Your task to perform on an android device: Open privacy settings Image 0: 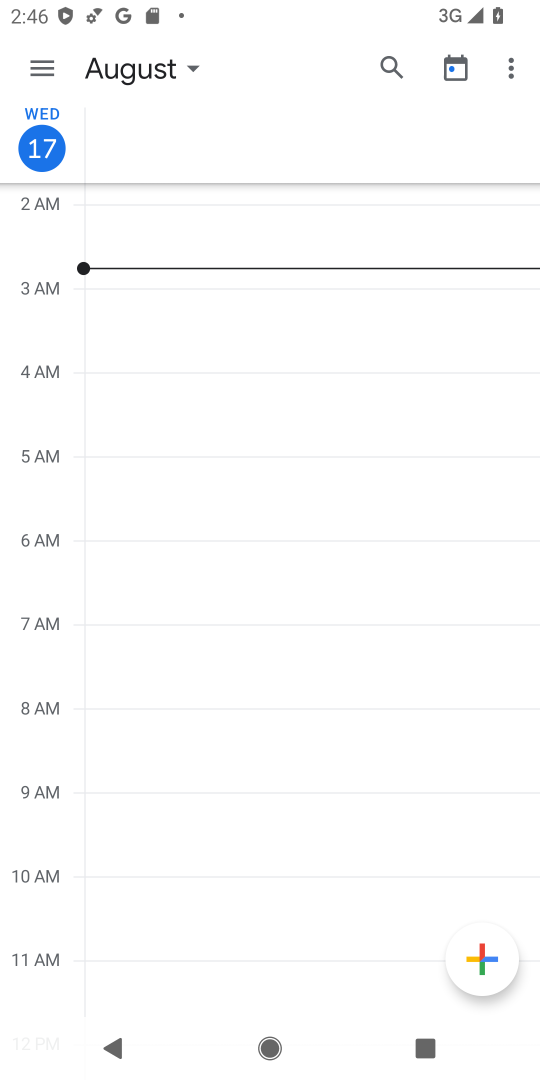
Step 0: press back button
Your task to perform on an android device: Open privacy settings Image 1: 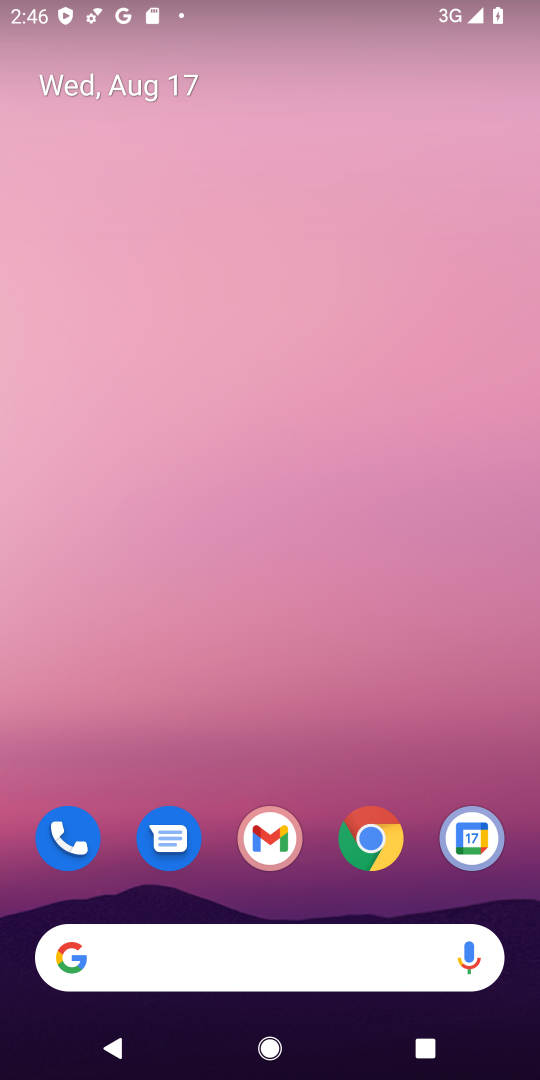
Step 1: drag from (208, 851) to (261, 123)
Your task to perform on an android device: Open privacy settings Image 2: 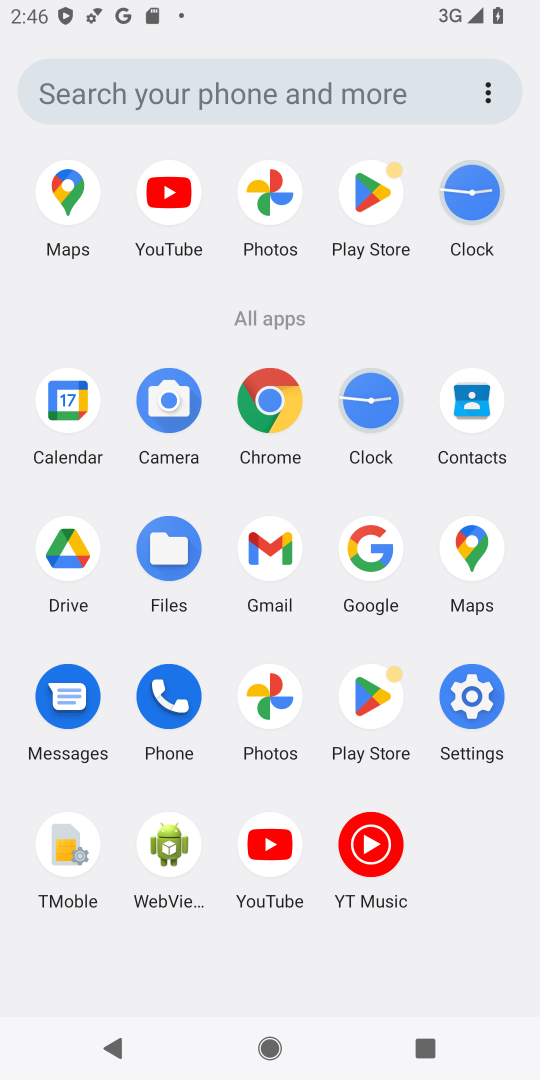
Step 2: click (474, 709)
Your task to perform on an android device: Open privacy settings Image 3: 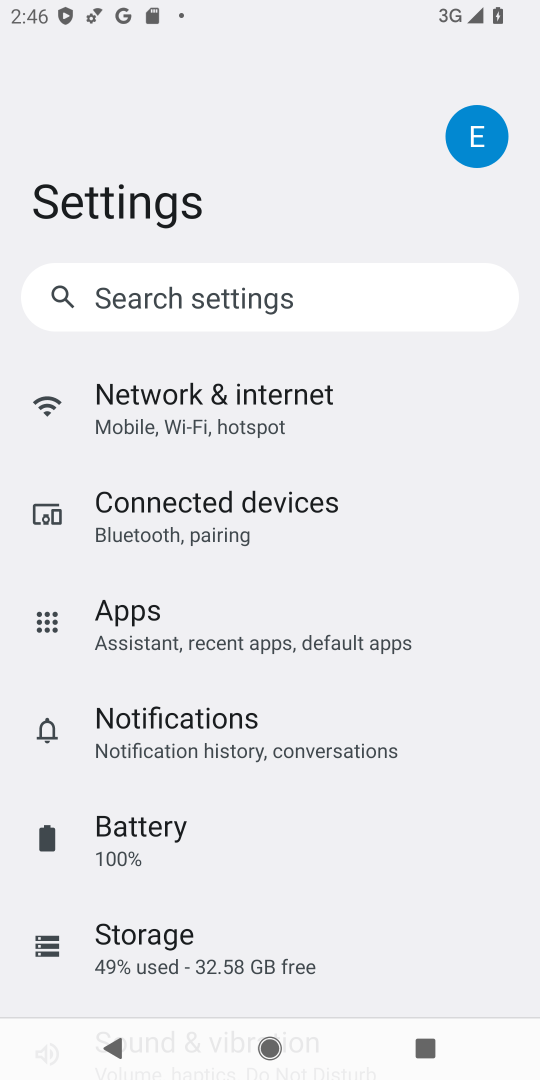
Step 3: drag from (171, 924) to (354, 333)
Your task to perform on an android device: Open privacy settings Image 4: 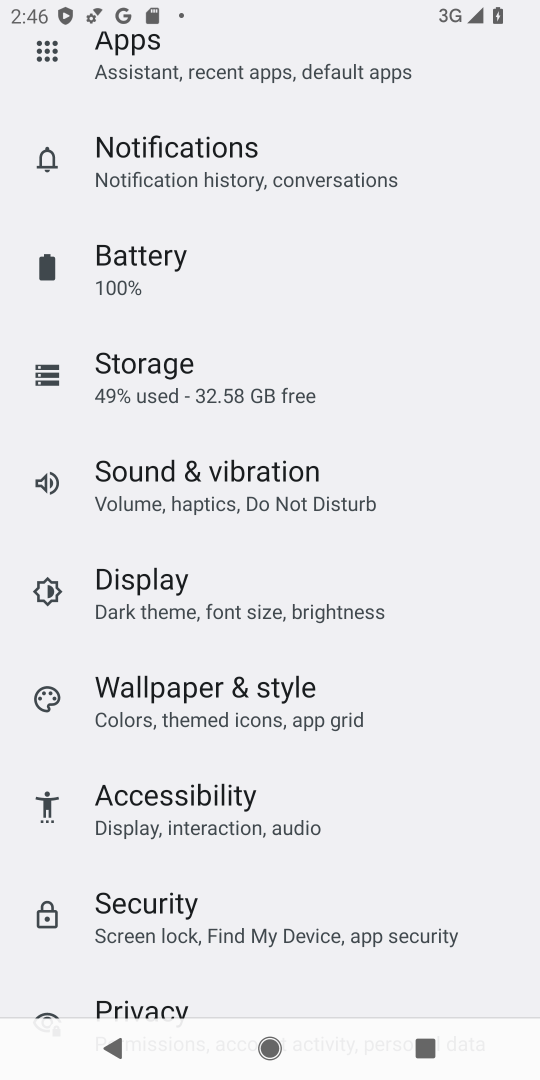
Step 4: click (150, 1006)
Your task to perform on an android device: Open privacy settings Image 5: 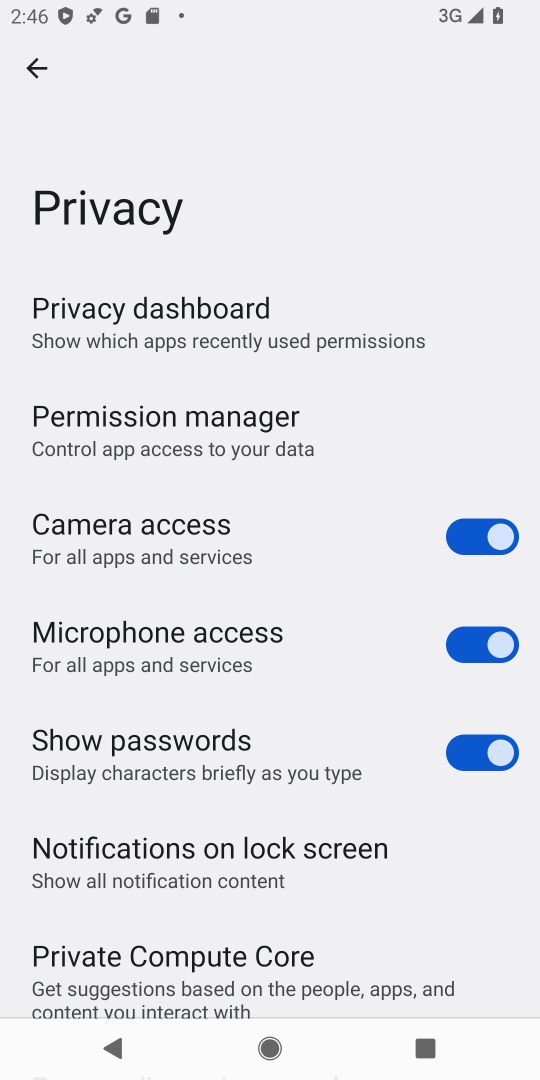
Step 5: task complete